Your task to perform on an android device: move a message to another label in the gmail app Image 0: 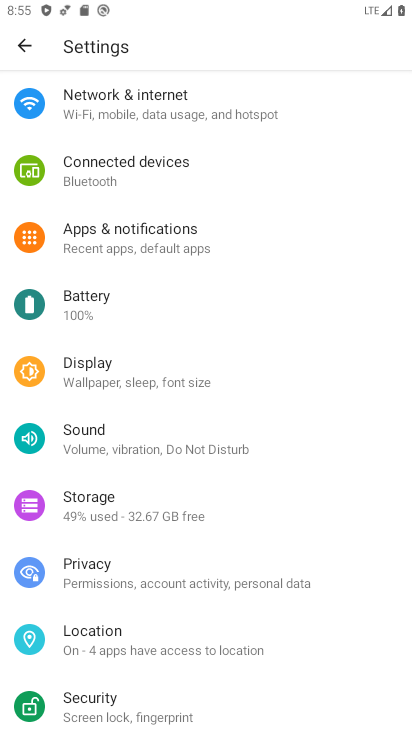
Step 0: press home button
Your task to perform on an android device: move a message to another label in the gmail app Image 1: 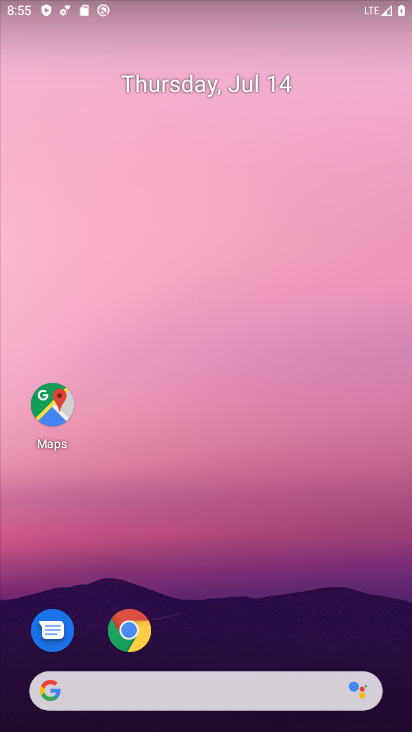
Step 1: drag from (252, 663) to (229, 34)
Your task to perform on an android device: move a message to another label in the gmail app Image 2: 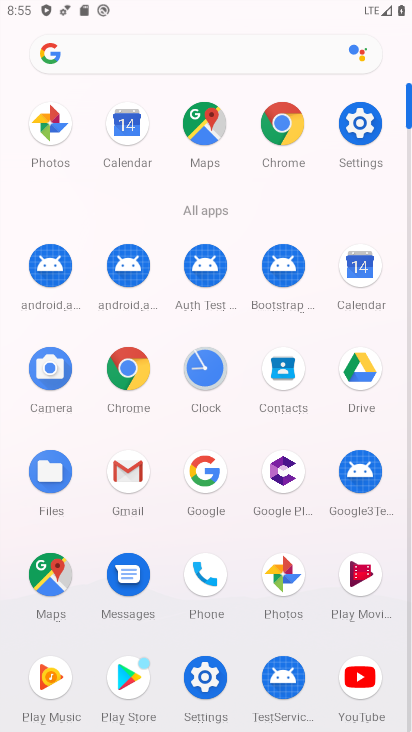
Step 2: click (122, 471)
Your task to perform on an android device: move a message to another label in the gmail app Image 3: 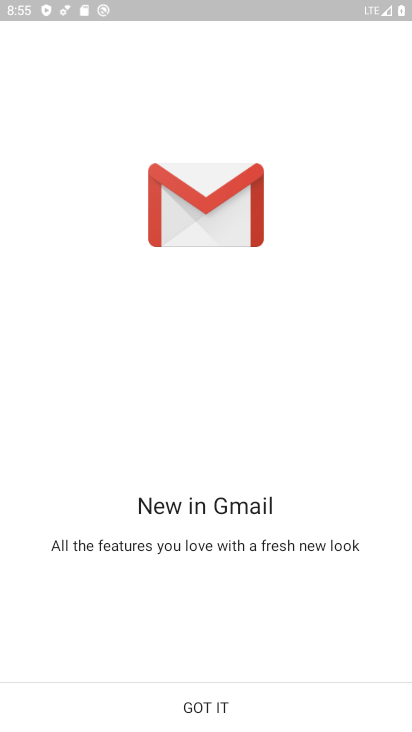
Step 3: click (162, 696)
Your task to perform on an android device: move a message to another label in the gmail app Image 4: 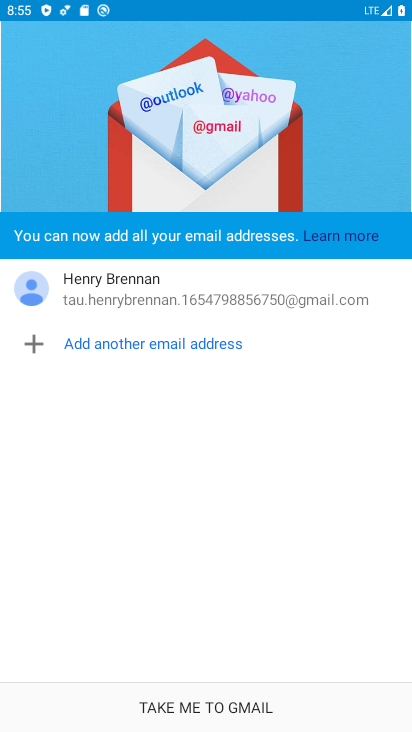
Step 4: click (162, 696)
Your task to perform on an android device: move a message to another label in the gmail app Image 5: 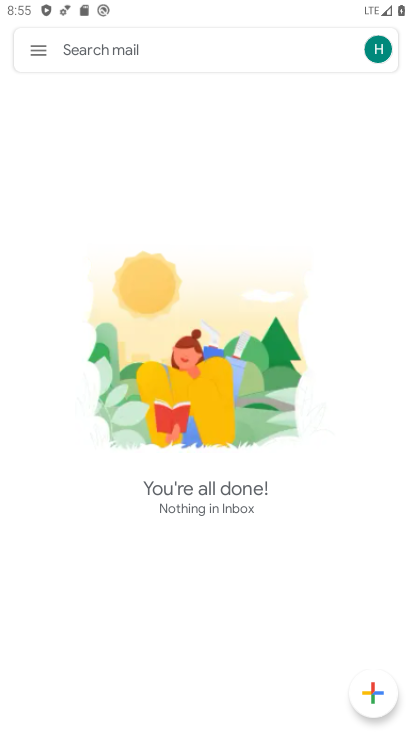
Step 5: task complete